Your task to perform on an android device: toggle priority inbox in the gmail app Image 0: 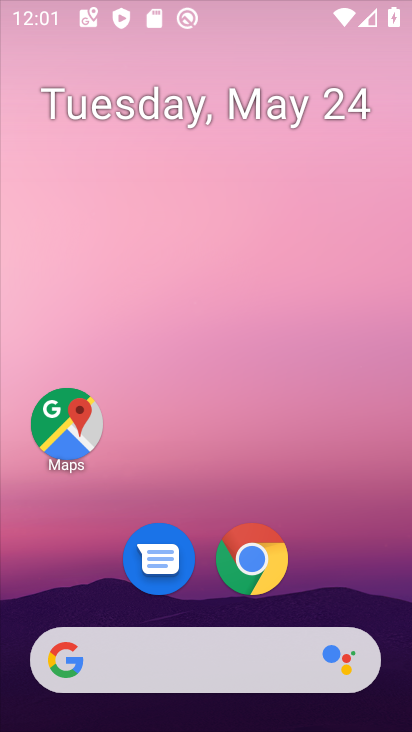
Step 0: drag from (338, 665) to (214, 121)
Your task to perform on an android device: toggle priority inbox in the gmail app Image 1: 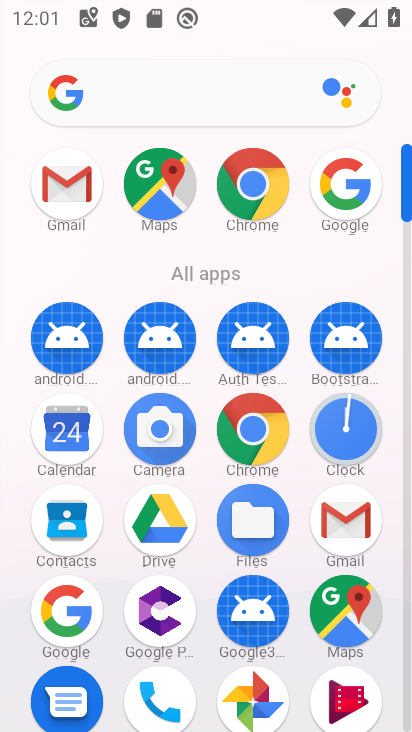
Step 1: click (342, 517)
Your task to perform on an android device: toggle priority inbox in the gmail app Image 2: 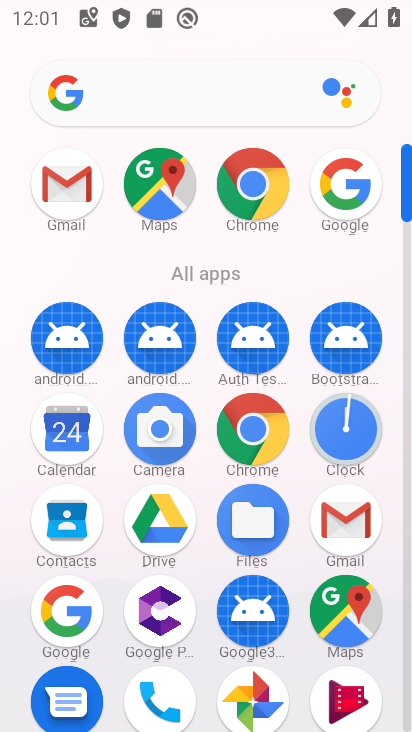
Step 2: click (342, 517)
Your task to perform on an android device: toggle priority inbox in the gmail app Image 3: 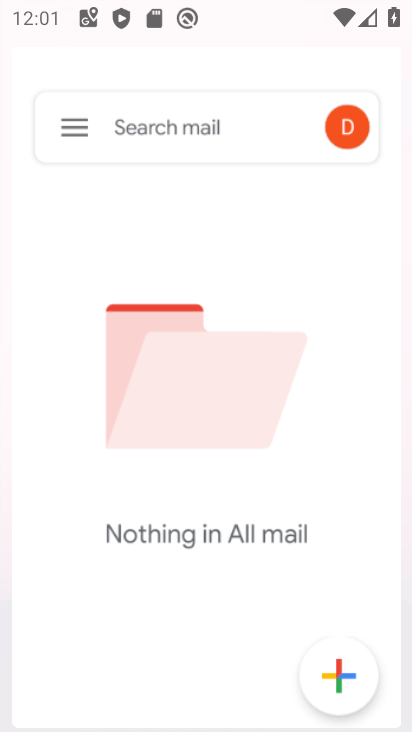
Step 3: click (342, 517)
Your task to perform on an android device: toggle priority inbox in the gmail app Image 4: 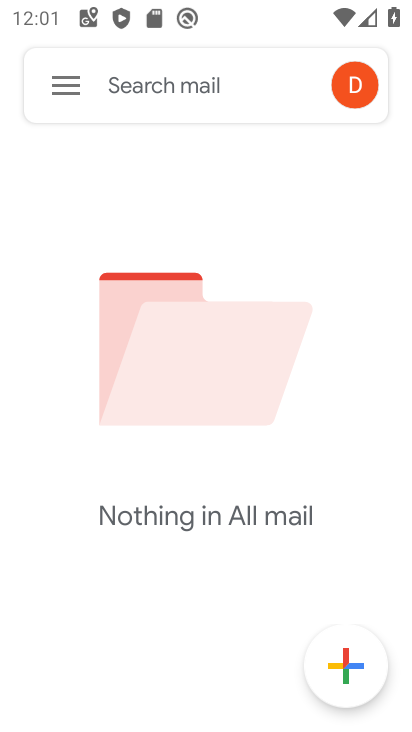
Step 4: click (64, 82)
Your task to perform on an android device: toggle priority inbox in the gmail app Image 5: 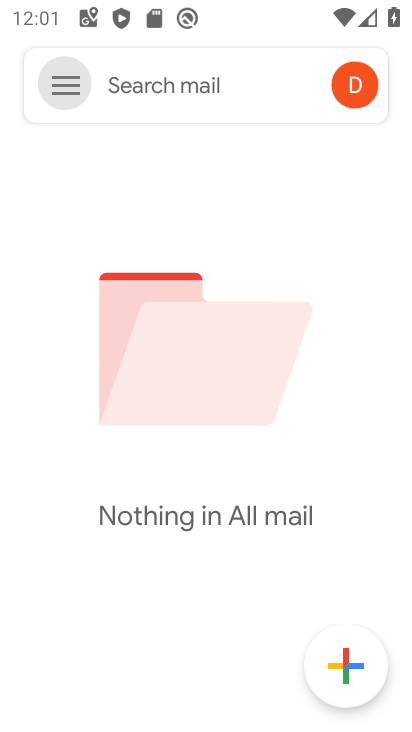
Step 5: click (64, 82)
Your task to perform on an android device: toggle priority inbox in the gmail app Image 6: 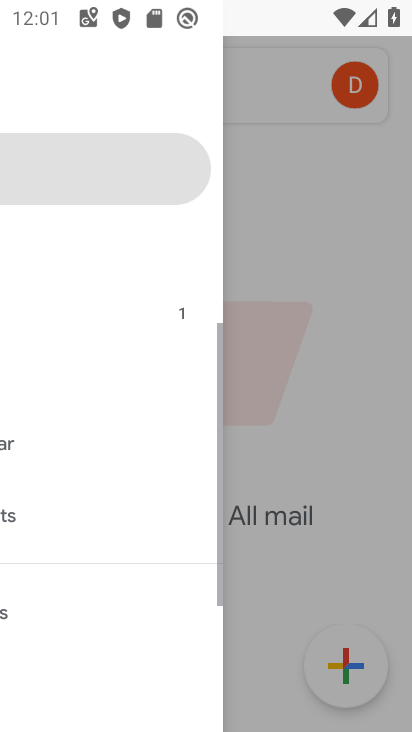
Step 6: click (64, 82)
Your task to perform on an android device: toggle priority inbox in the gmail app Image 7: 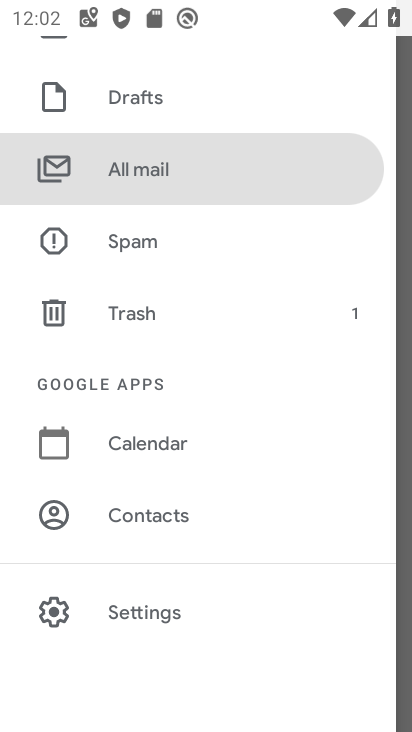
Step 7: click (148, 607)
Your task to perform on an android device: toggle priority inbox in the gmail app Image 8: 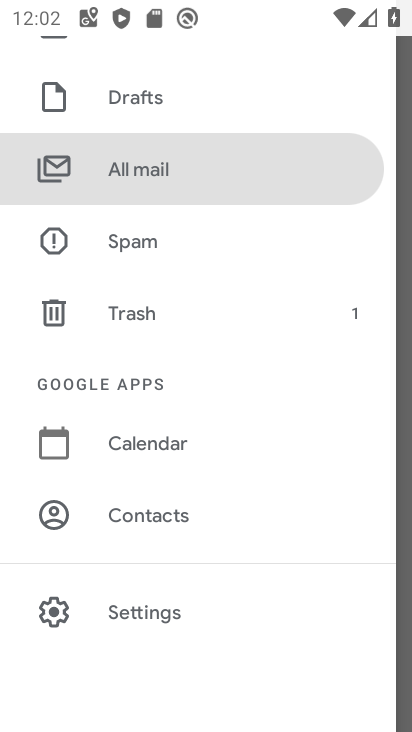
Step 8: click (148, 607)
Your task to perform on an android device: toggle priority inbox in the gmail app Image 9: 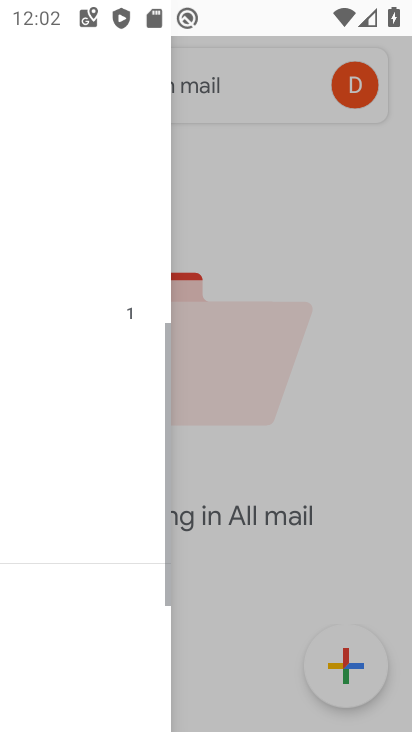
Step 9: click (148, 607)
Your task to perform on an android device: toggle priority inbox in the gmail app Image 10: 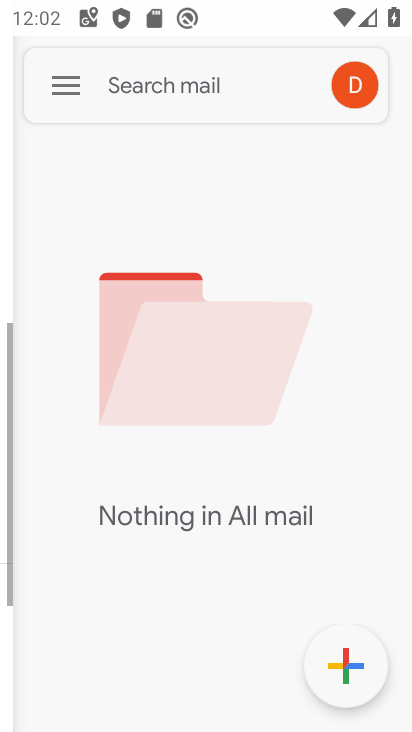
Step 10: click (148, 607)
Your task to perform on an android device: toggle priority inbox in the gmail app Image 11: 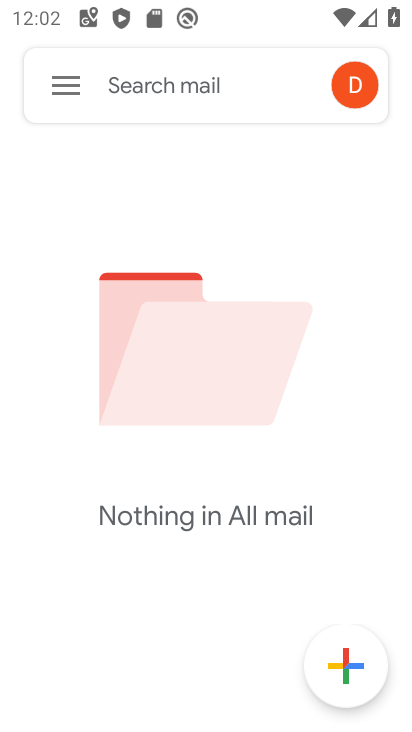
Step 11: click (148, 607)
Your task to perform on an android device: toggle priority inbox in the gmail app Image 12: 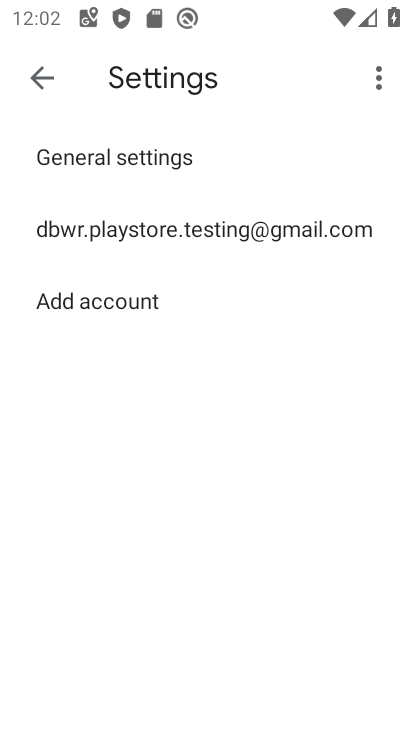
Step 12: click (152, 219)
Your task to perform on an android device: toggle priority inbox in the gmail app Image 13: 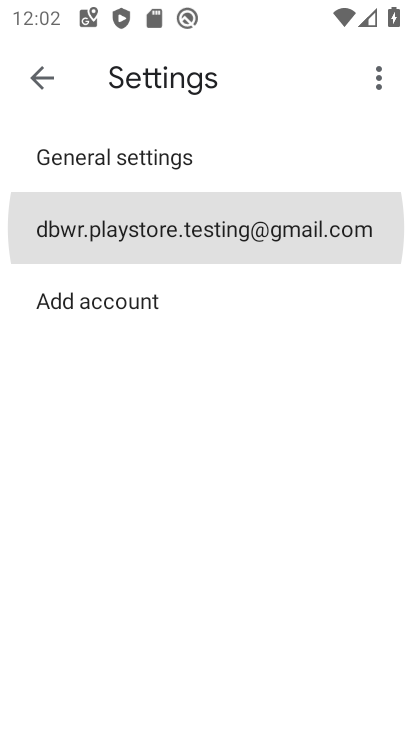
Step 13: click (154, 219)
Your task to perform on an android device: toggle priority inbox in the gmail app Image 14: 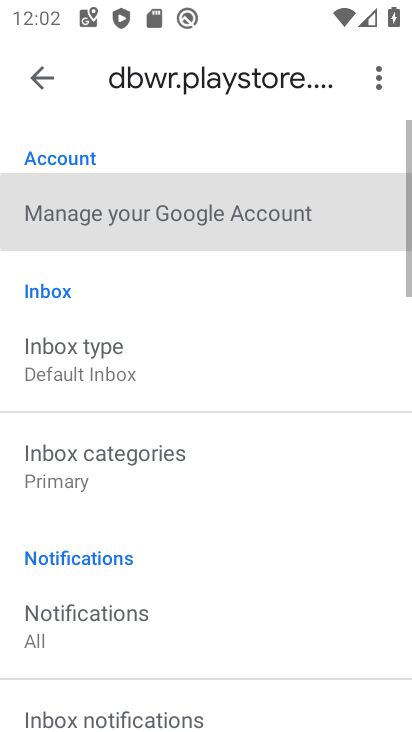
Step 14: click (154, 219)
Your task to perform on an android device: toggle priority inbox in the gmail app Image 15: 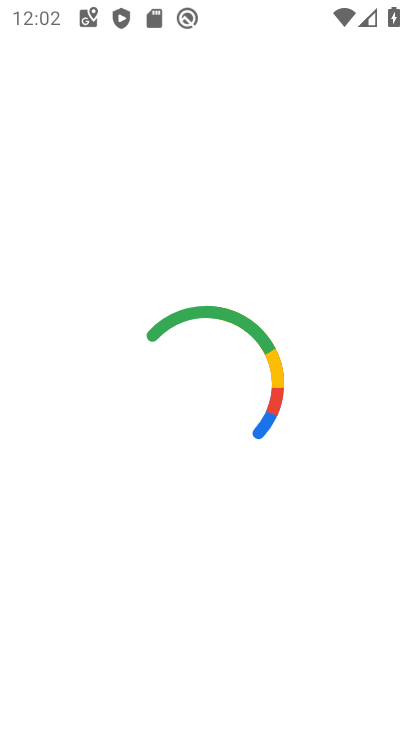
Step 15: press back button
Your task to perform on an android device: toggle priority inbox in the gmail app Image 16: 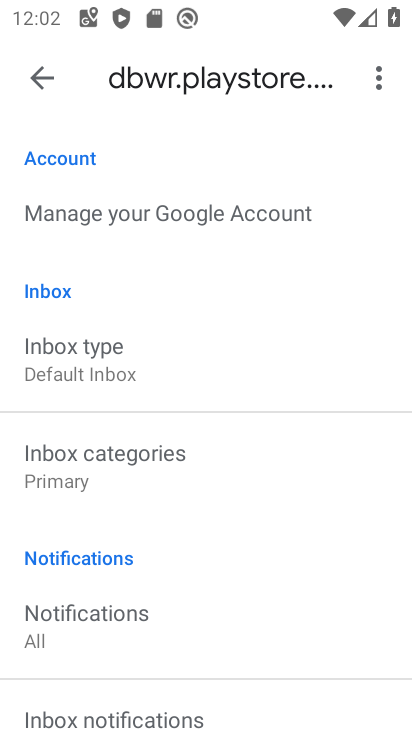
Step 16: click (65, 465)
Your task to perform on an android device: toggle priority inbox in the gmail app Image 17: 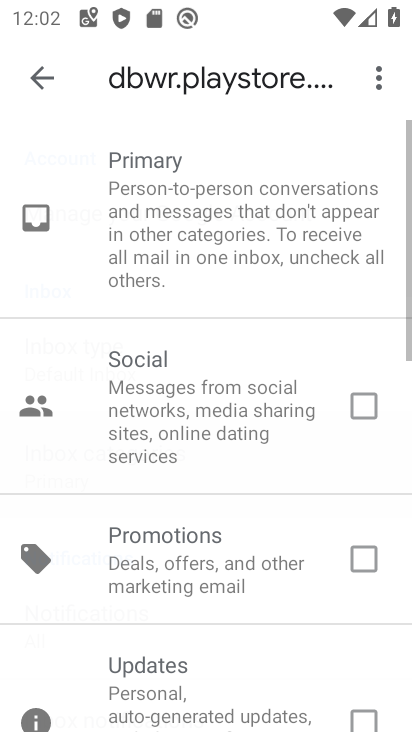
Step 17: click (64, 465)
Your task to perform on an android device: toggle priority inbox in the gmail app Image 18: 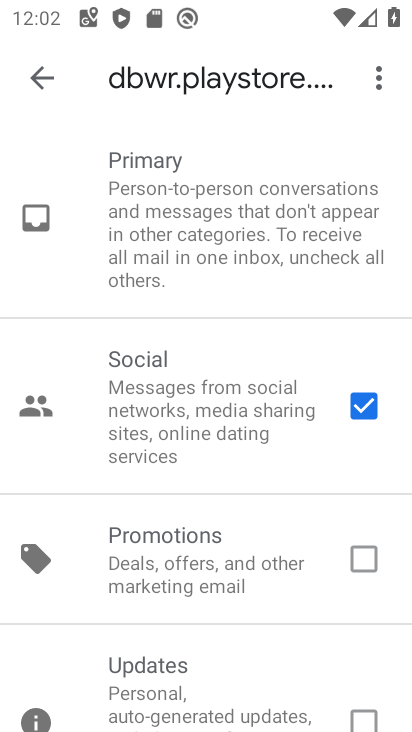
Step 18: click (40, 79)
Your task to perform on an android device: toggle priority inbox in the gmail app Image 19: 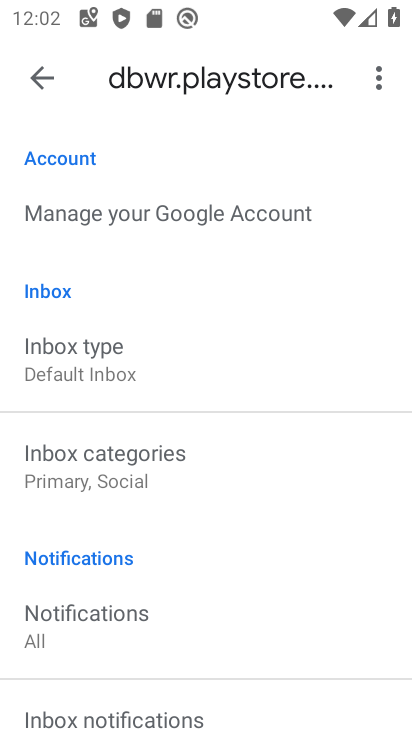
Step 19: click (79, 347)
Your task to perform on an android device: toggle priority inbox in the gmail app Image 20: 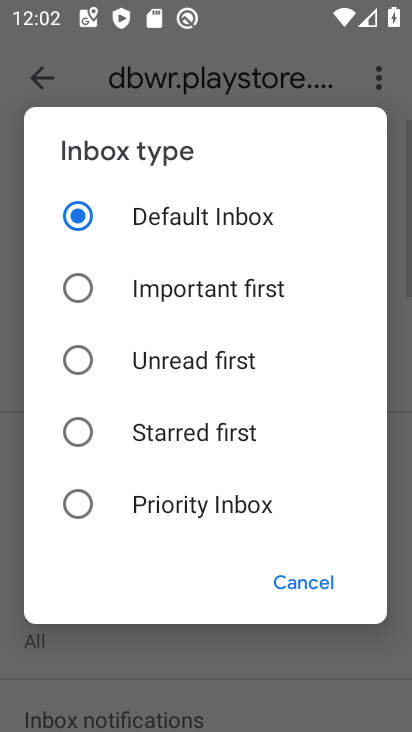
Step 20: click (82, 494)
Your task to perform on an android device: toggle priority inbox in the gmail app Image 21: 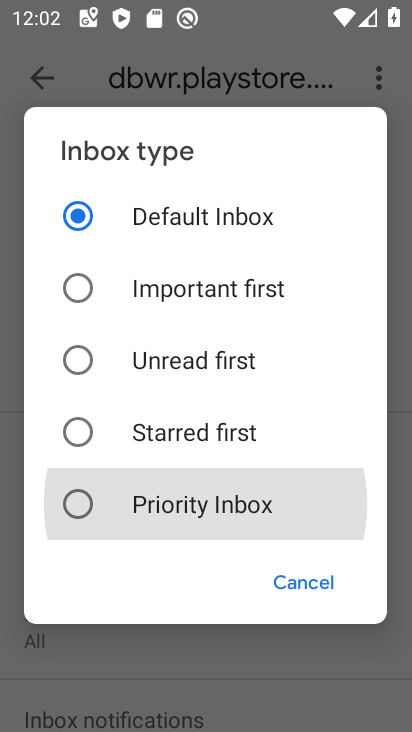
Step 21: click (81, 498)
Your task to perform on an android device: toggle priority inbox in the gmail app Image 22: 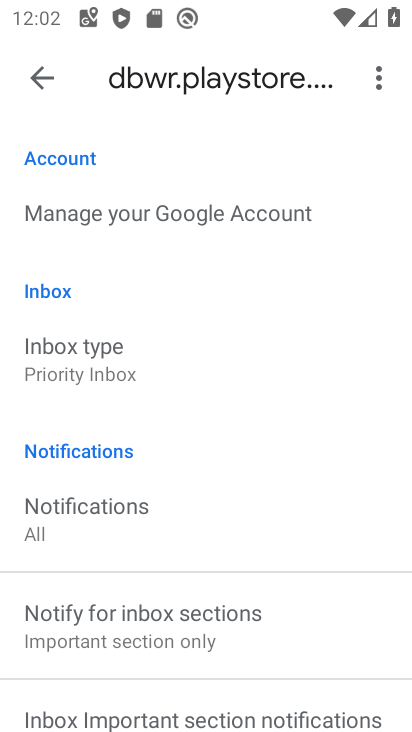
Step 22: task complete